Your task to perform on an android device: See recent photos Image 0: 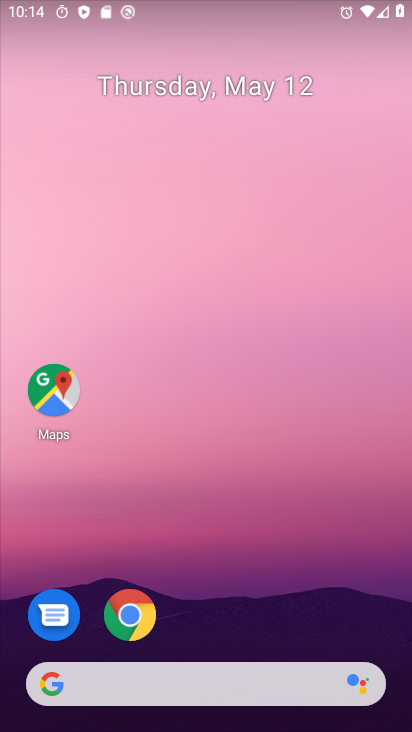
Step 0: drag from (226, 645) to (219, 174)
Your task to perform on an android device: See recent photos Image 1: 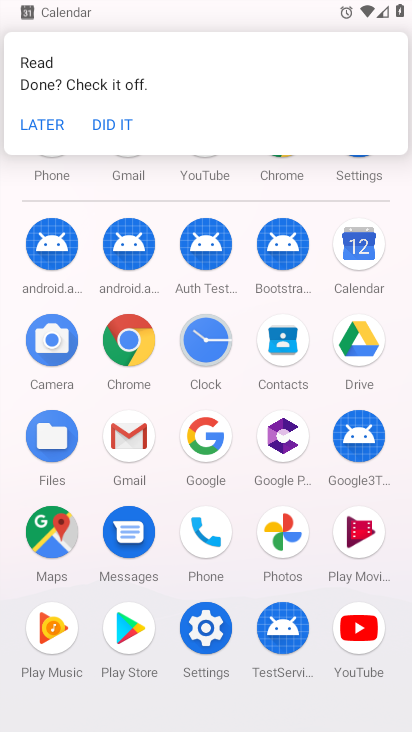
Step 1: click (284, 531)
Your task to perform on an android device: See recent photos Image 2: 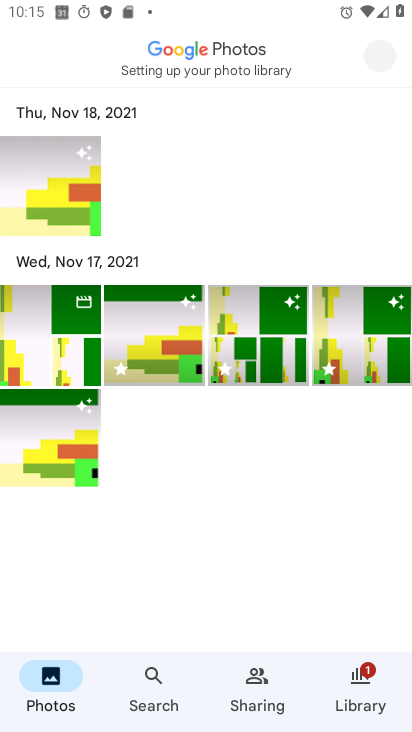
Step 2: task complete